Your task to perform on an android device: turn on priority inbox in the gmail app Image 0: 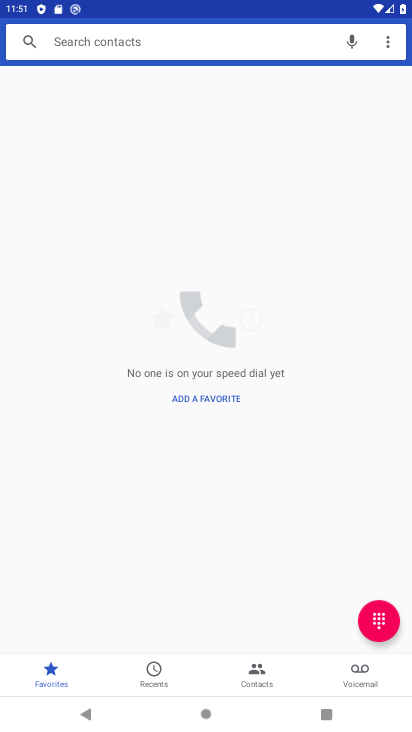
Step 0: press home button
Your task to perform on an android device: turn on priority inbox in the gmail app Image 1: 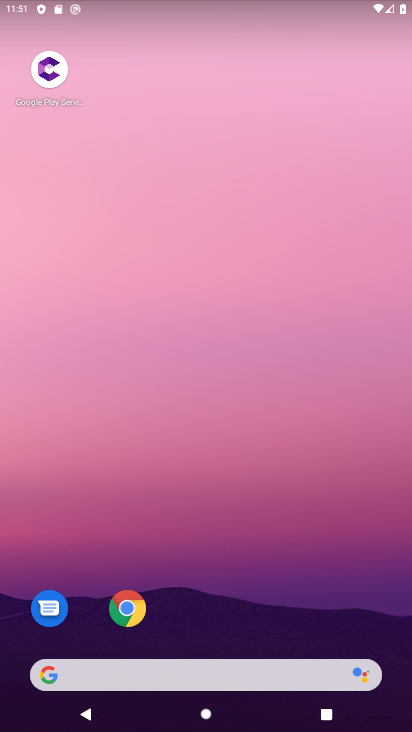
Step 1: drag from (281, 606) to (290, 43)
Your task to perform on an android device: turn on priority inbox in the gmail app Image 2: 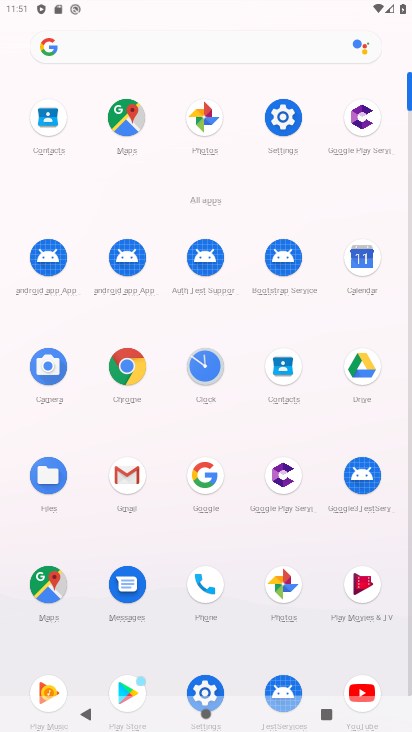
Step 2: click (139, 475)
Your task to perform on an android device: turn on priority inbox in the gmail app Image 3: 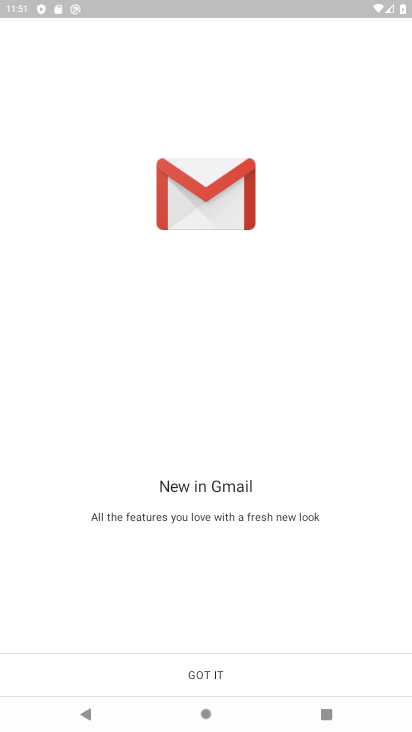
Step 3: click (197, 678)
Your task to perform on an android device: turn on priority inbox in the gmail app Image 4: 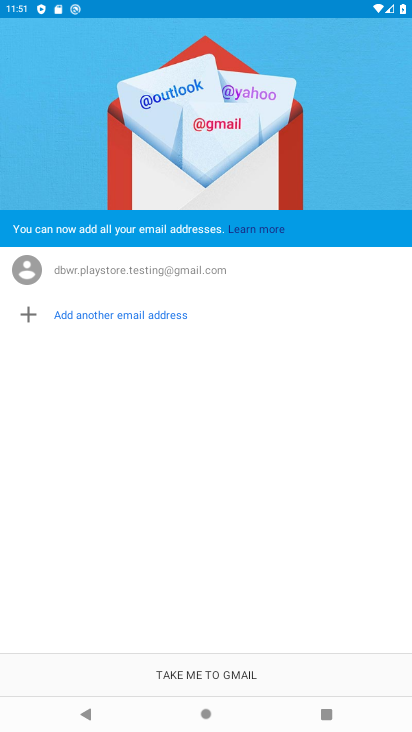
Step 4: click (197, 678)
Your task to perform on an android device: turn on priority inbox in the gmail app Image 5: 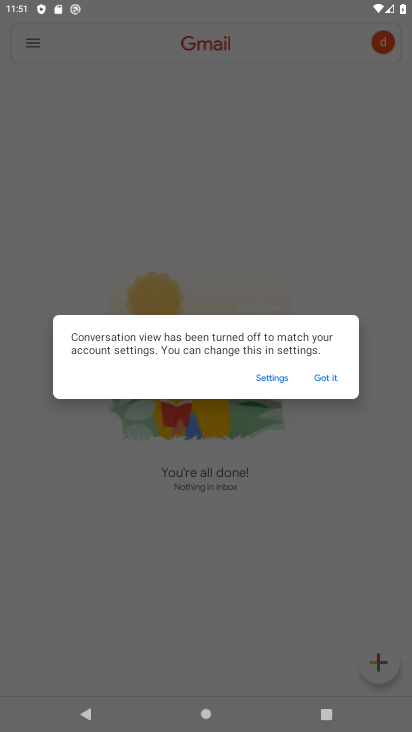
Step 5: click (317, 380)
Your task to perform on an android device: turn on priority inbox in the gmail app Image 6: 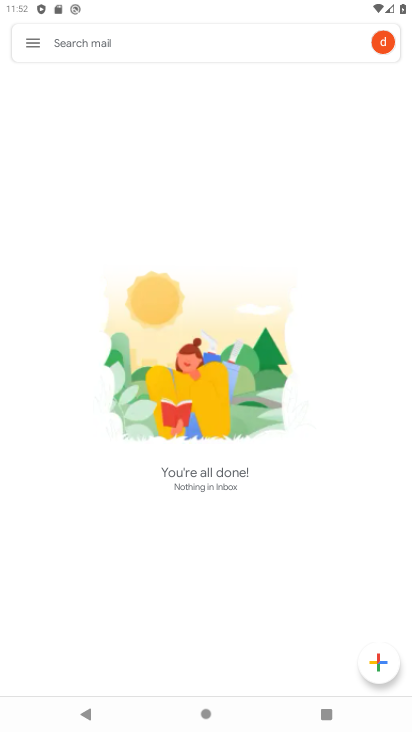
Step 6: click (50, 44)
Your task to perform on an android device: turn on priority inbox in the gmail app Image 7: 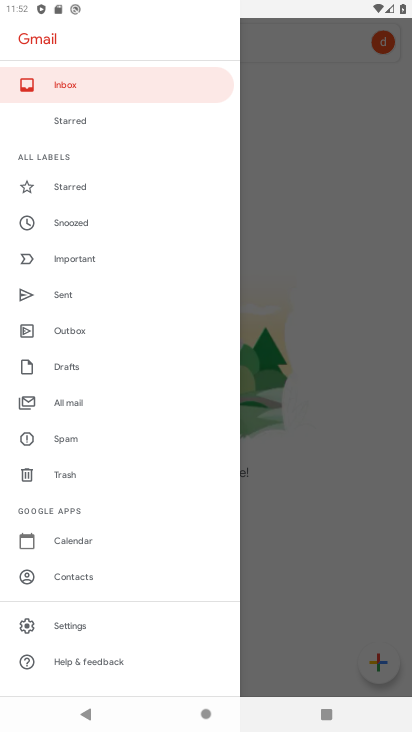
Step 7: click (76, 619)
Your task to perform on an android device: turn on priority inbox in the gmail app Image 8: 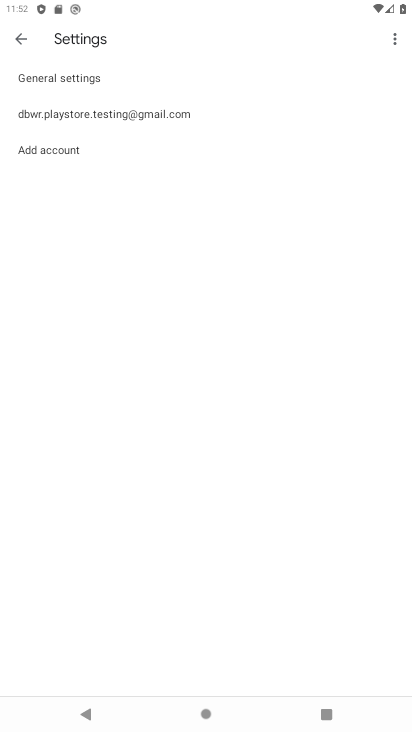
Step 8: click (38, 120)
Your task to perform on an android device: turn on priority inbox in the gmail app Image 9: 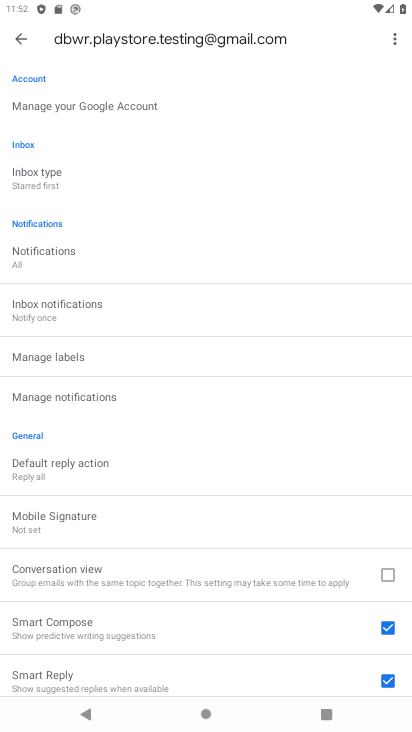
Step 9: click (42, 185)
Your task to perform on an android device: turn on priority inbox in the gmail app Image 10: 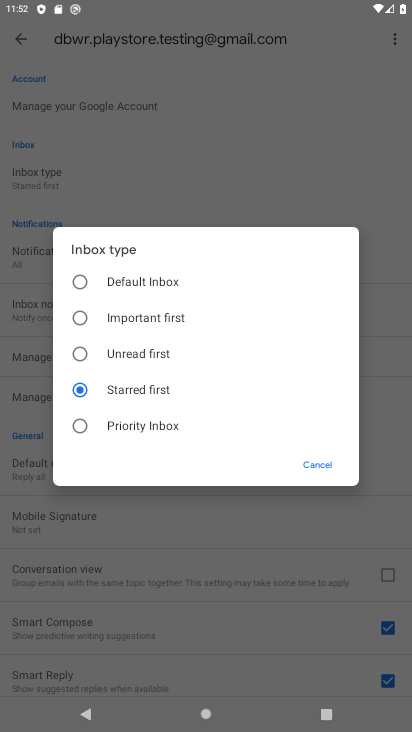
Step 10: click (88, 428)
Your task to perform on an android device: turn on priority inbox in the gmail app Image 11: 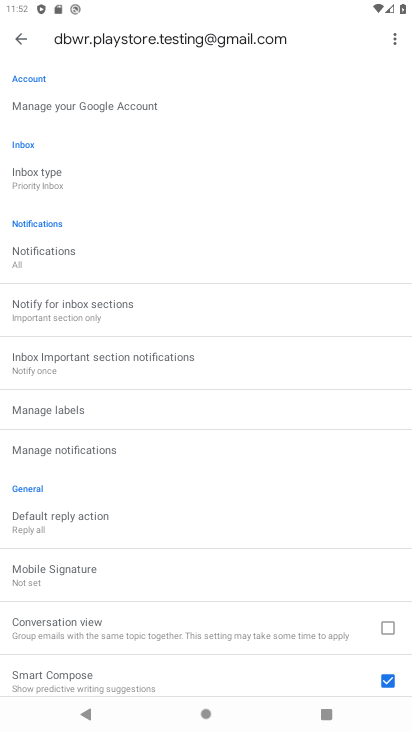
Step 11: task complete